Your task to perform on an android device: Show me productivity apps on the Play Store Image 0: 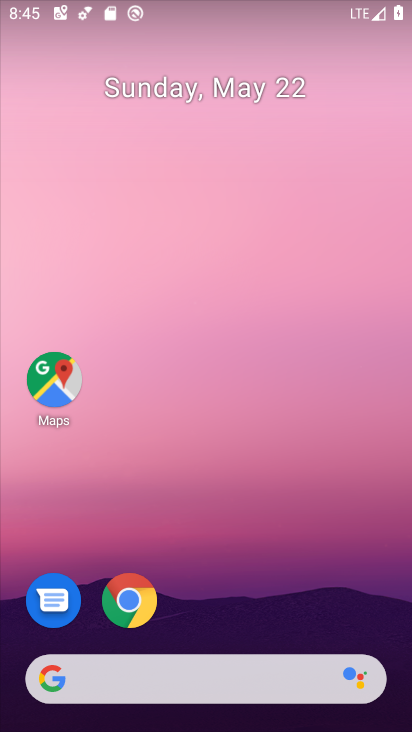
Step 0: drag from (221, 648) to (262, 398)
Your task to perform on an android device: Show me productivity apps on the Play Store Image 1: 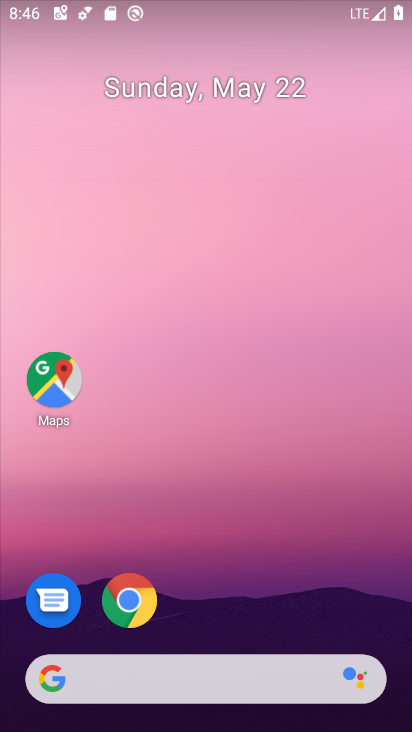
Step 1: drag from (203, 578) to (214, 343)
Your task to perform on an android device: Show me productivity apps on the Play Store Image 2: 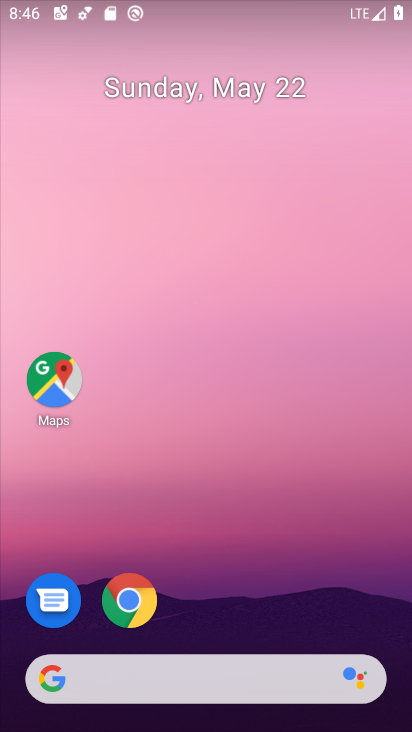
Step 2: drag from (206, 651) to (224, 208)
Your task to perform on an android device: Show me productivity apps on the Play Store Image 3: 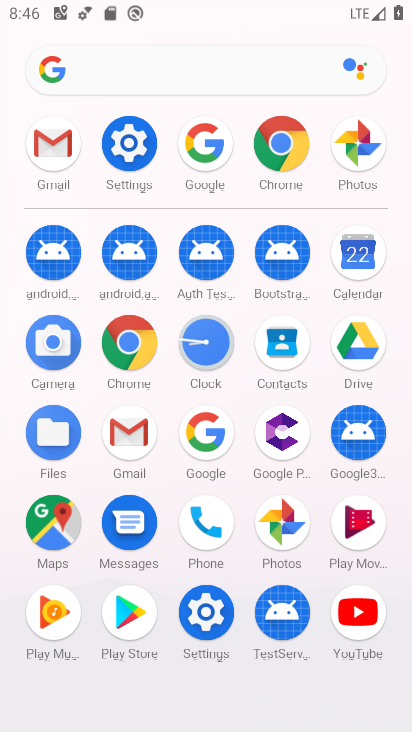
Step 3: click (116, 618)
Your task to perform on an android device: Show me productivity apps on the Play Store Image 4: 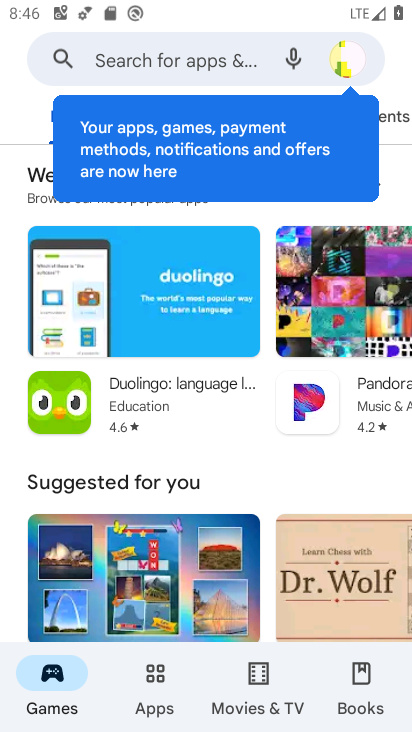
Step 4: drag from (190, 699) to (250, 337)
Your task to perform on an android device: Show me productivity apps on the Play Store Image 5: 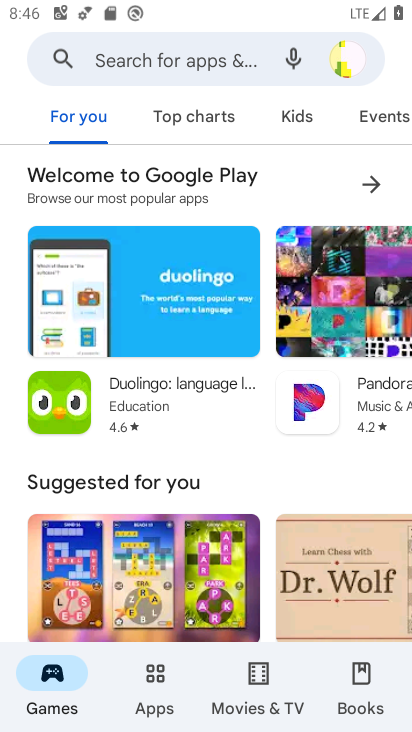
Step 5: click (163, 699)
Your task to perform on an android device: Show me productivity apps on the Play Store Image 6: 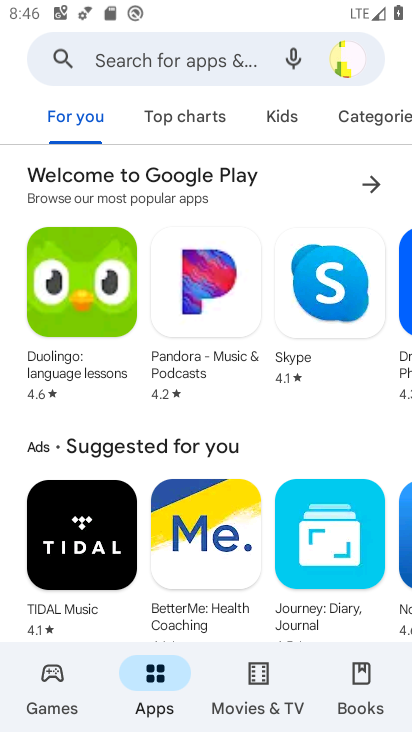
Step 6: task complete